Your task to perform on an android device: turn off notifications settings in the gmail app Image 0: 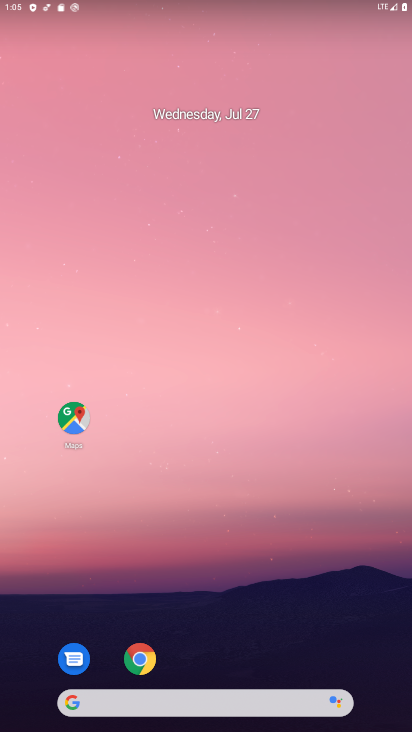
Step 0: drag from (201, 719) to (171, 8)
Your task to perform on an android device: turn off notifications settings in the gmail app Image 1: 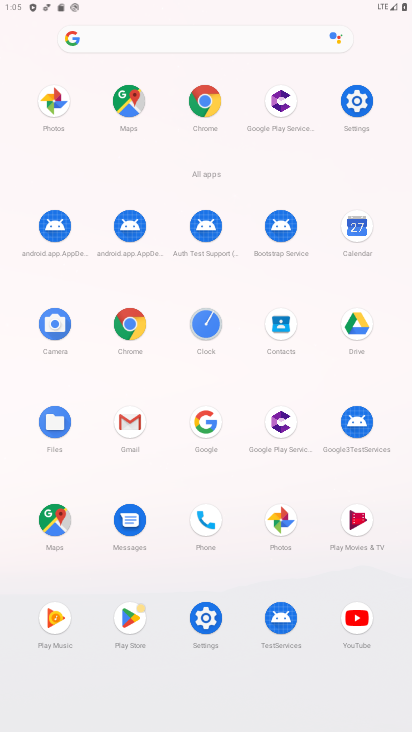
Step 1: click (131, 419)
Your task to perform on an android device: turn off notifications settings in the gmail app Image 2: 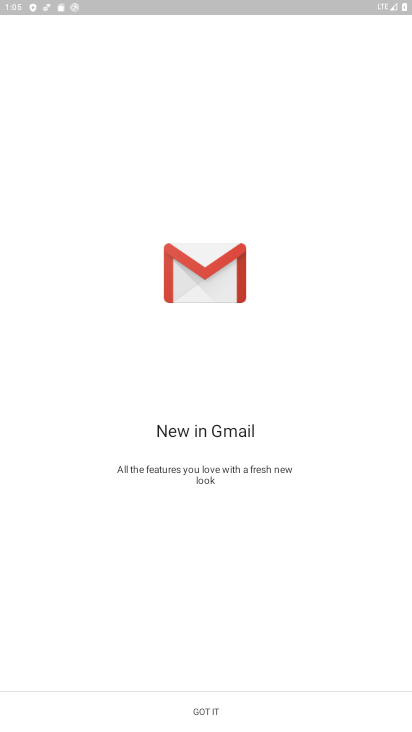
Step 2: click (214, 705)
Your task to perform on an android device: turn off notifications settings in the gmail app Image 3: 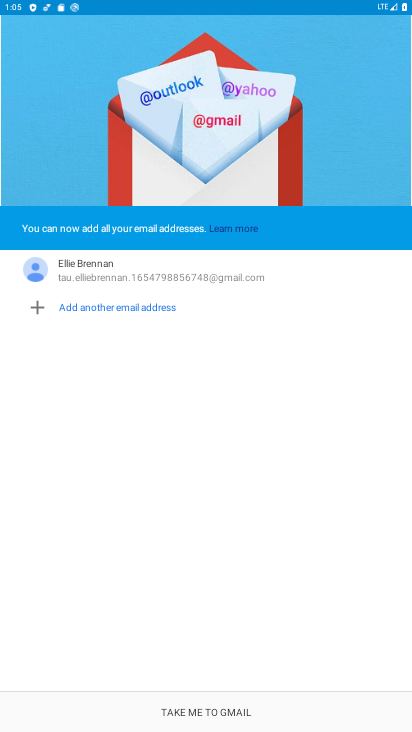
Step 3: click (210, 709)
Your task to perform on an android device: turn off notifications settings in the gmail app Image 4: 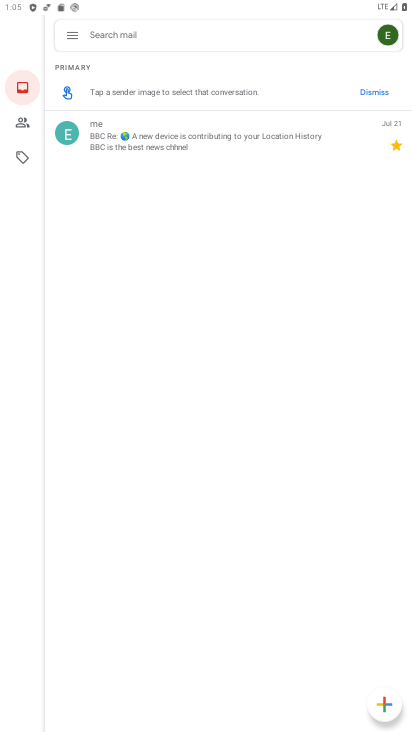
Step 4: click (65, 39)
Your task to perform on an android device: turn off notifications settings in the gmail app Image 5: 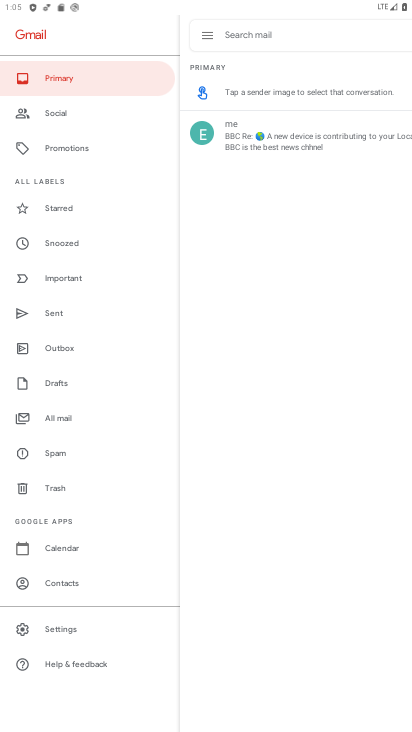
Step 5: click (51, 623)
Your task to perform on an android device: turn off notifications settings in the gmail app Image 6: 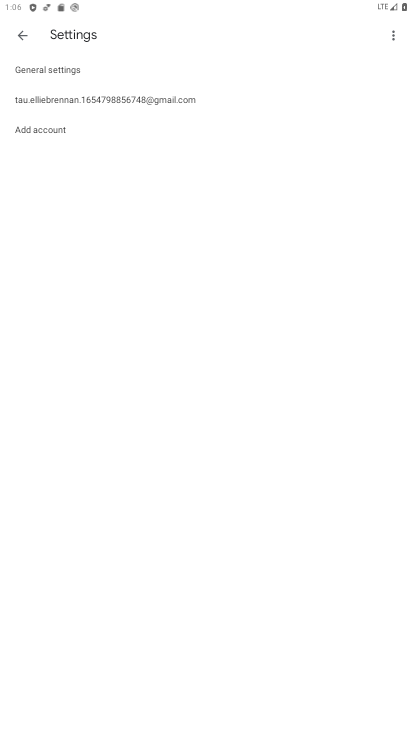
Step 6: click (159, 102)
Your task to perform on an android device: turn off notifications settings in the gmail app Image 7: 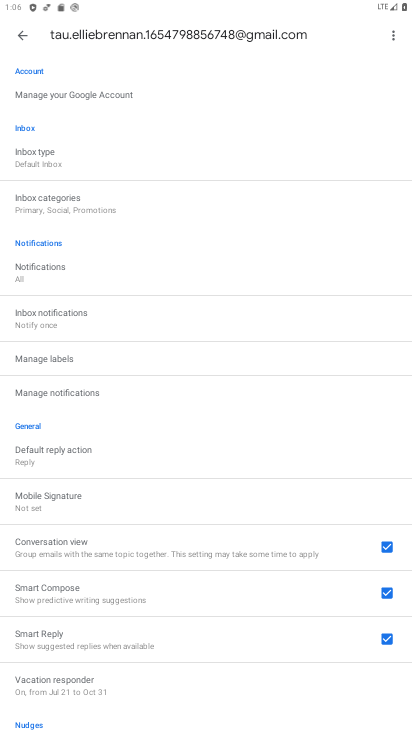
Step 7: click (52, 264)
Your task to perform on an android device: turn off notifications settings in the gmail app Image 8: 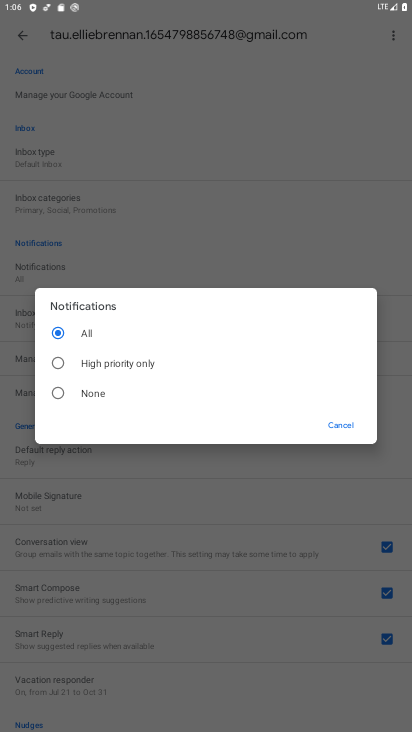
Step 8: click (58, 394)
Your task to perform on an android device: turn off notifications settings in the gmail app Image 9: 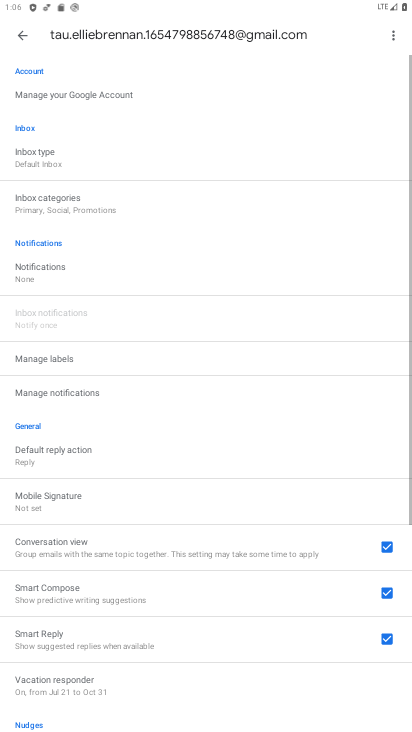
Step 9: task complete